Your task to perform on an android device: Look up the best rated Nike shoes on Nike.com Image 0: 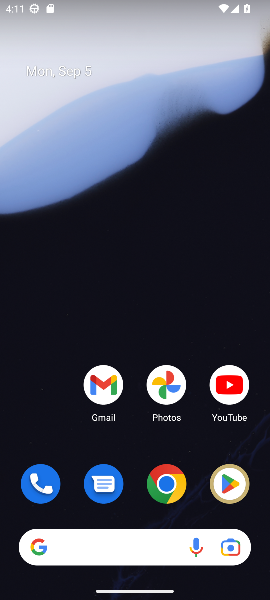
Step 0: click (171, 485)
Your task to perform on an android device: Look up the best rated Nike shoes on Nike.com Image 1: 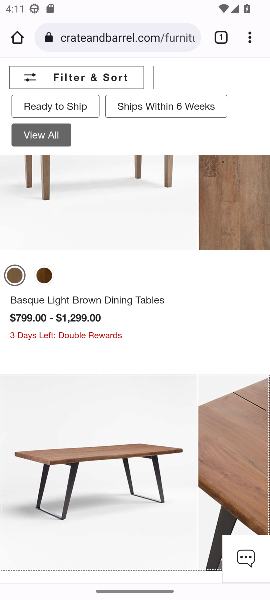
Step 1: click (156, 44)
Your task to perform on an android device: Look up the best rated Nike shoes on Nike.com Image 2: 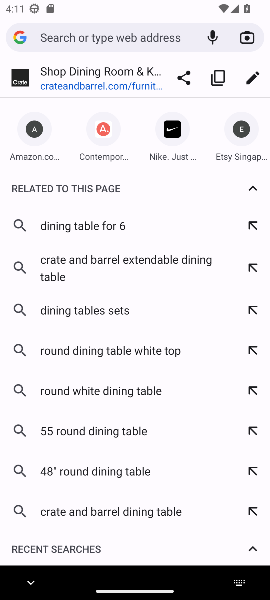
Step 2: type "Nike.com"
Your task to perform on an android device: Look up the best rated Nike shoes on Nike.com Image 3: 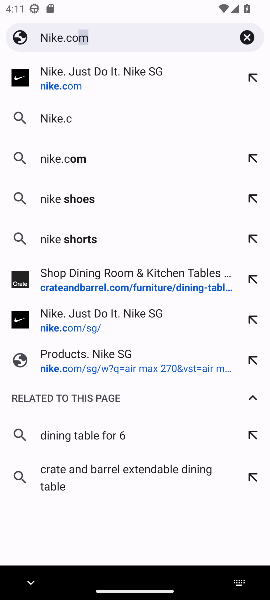
Step 3: press enter
Your task to perform on an android device: Look up the best rated Nike shoes on Nike.com Image 4: 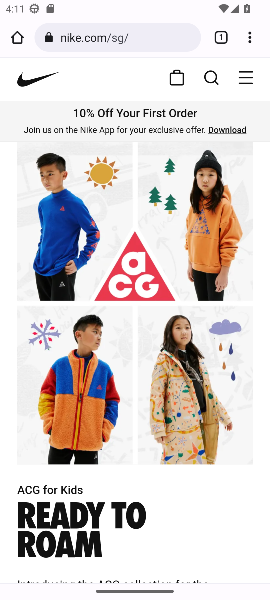
Step 4: click (206, 71)
Your task to perform on an android device: Look up the best rated Nike shoes on Nike.com Image 5: 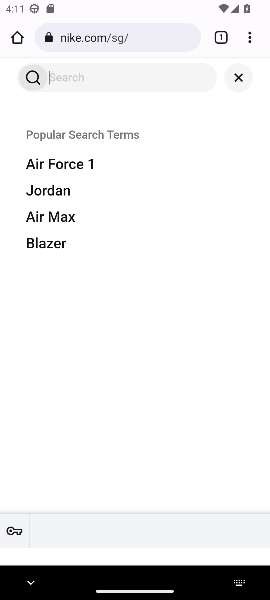
Step 5: click (61, 73)
Your task to perform on an android device: Look up the best rated Nike shoes on Nike.com Image 6: 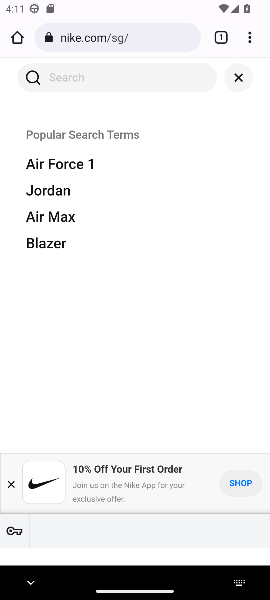
Step 6: type " Nike shoes "
Your task to perform on an android device: Look up the best rated Nike shoes on Nike.com Image 7: 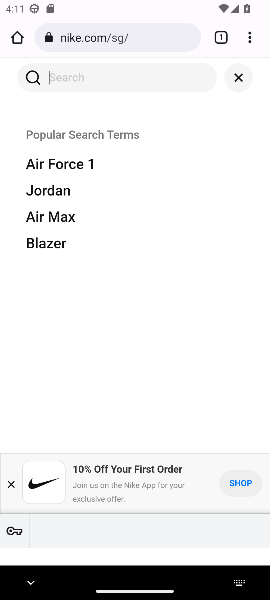
Step 7: press enter
Your task to perform on an android device: Look up the best rated Nike shoes on Nike.com Image 8: 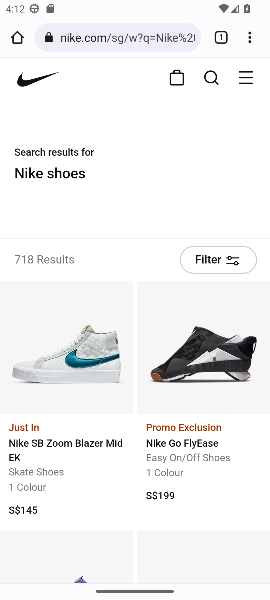
Step 8: task complete